Your task to perform on an android device: install app "Google Translate" Image 0: 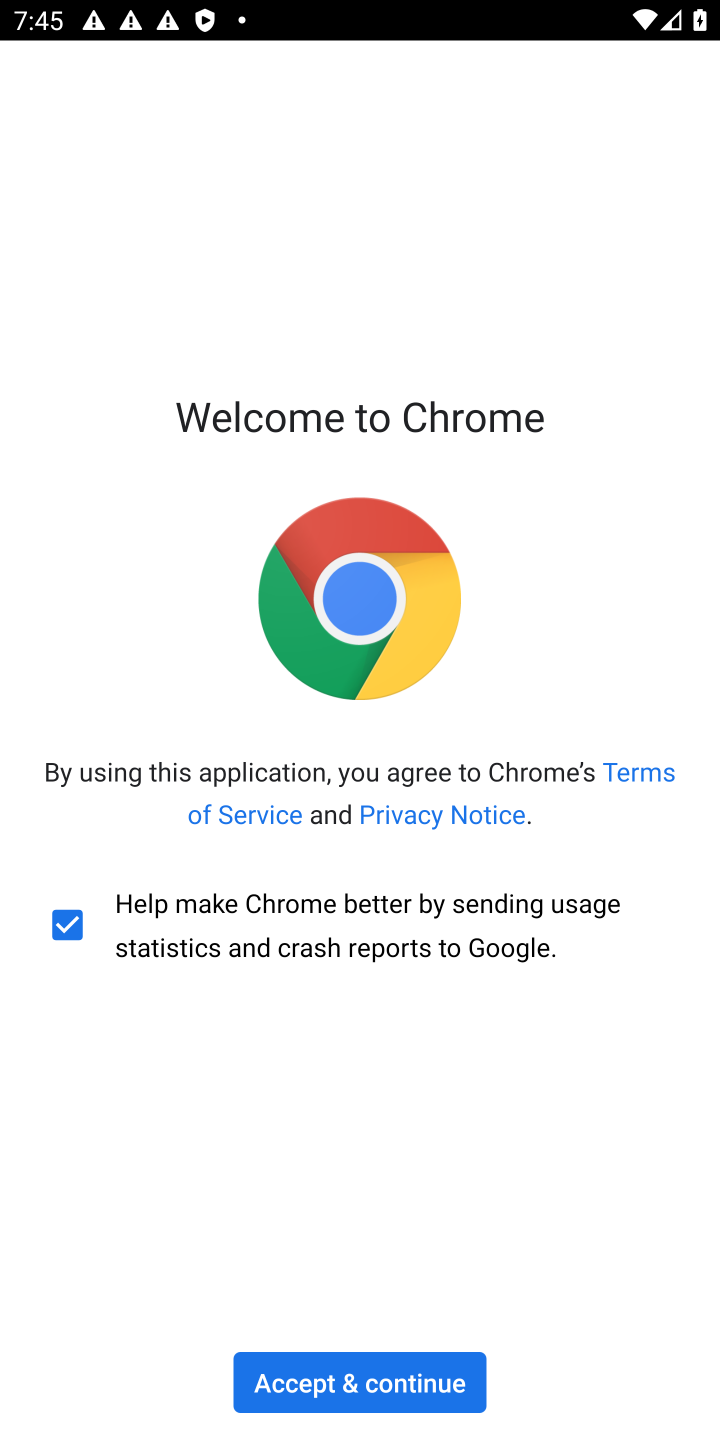
Step 0: press home button
Your task to perform on an android device: install app "Google Translate" Image 1: 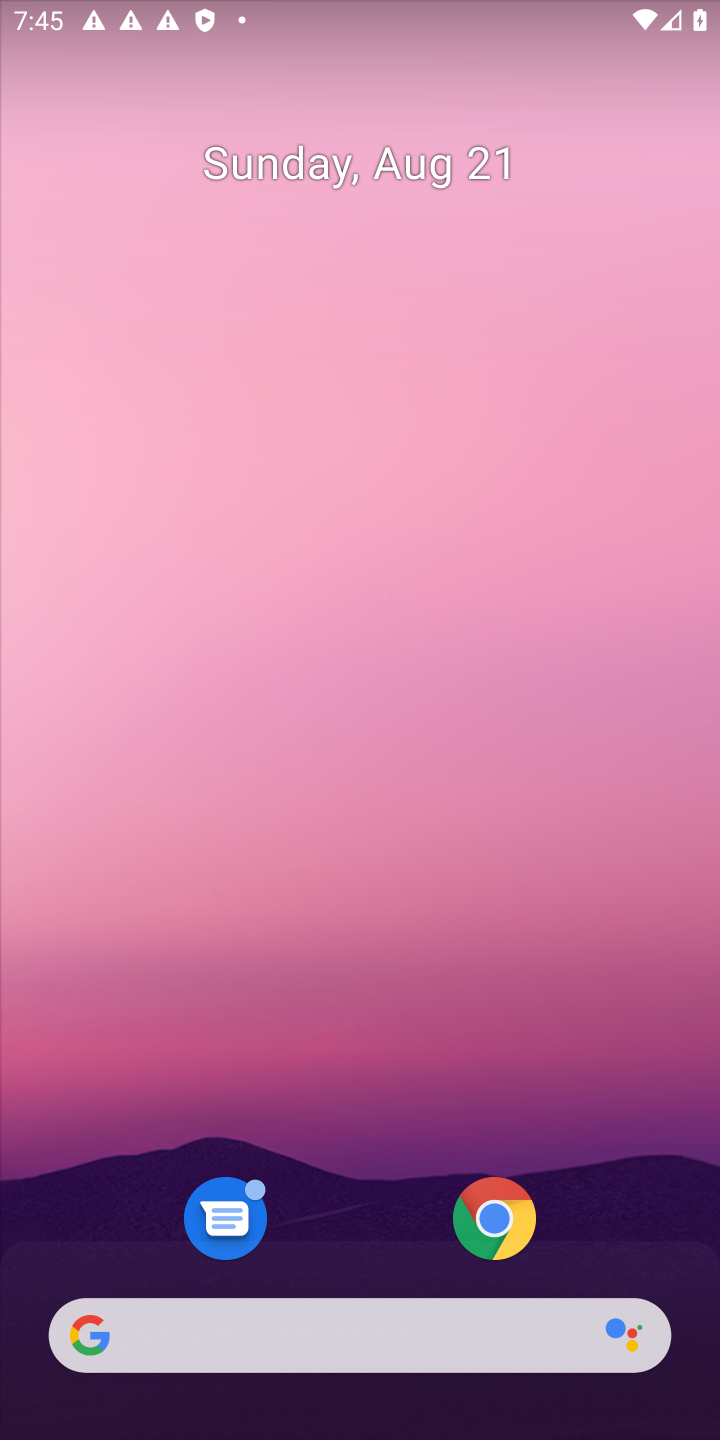
Step 1: drag from (289, 1015) to (81, 274)
Your task to perform on an android device: install app "Google Translate" Image 2: 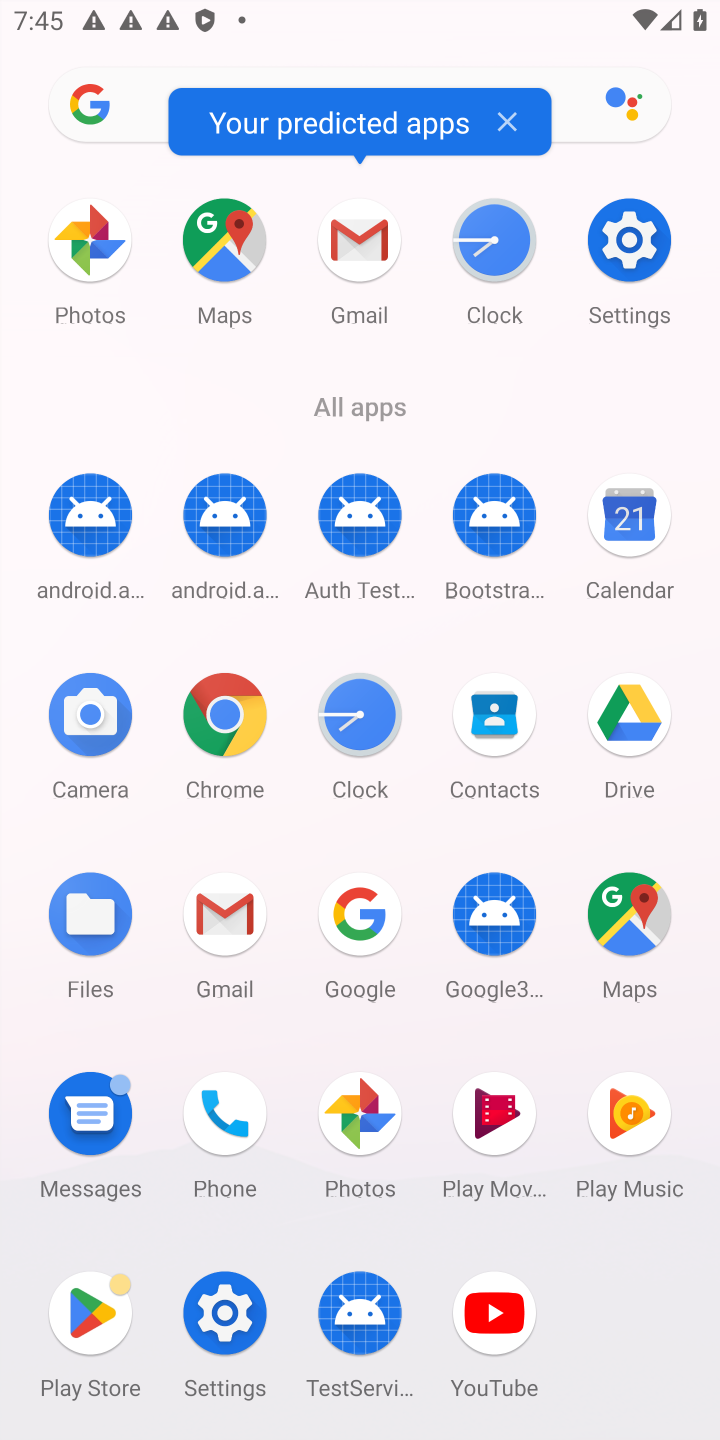
Step 2: click (112, 1338)
Your task to perform on an android device: install app "Google Translate" Image 3: 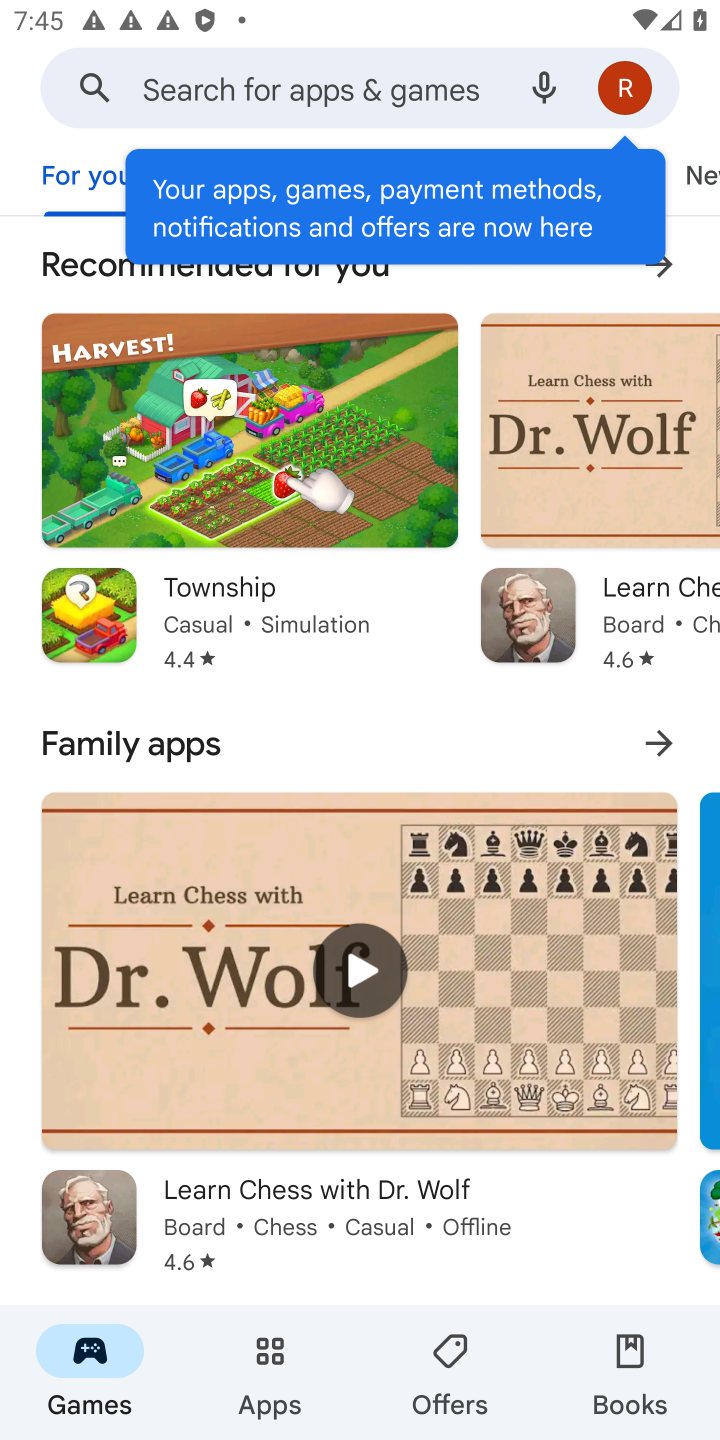
Step 3: click (344, 84)
Your task to perform on an android device: install app "Google Translate" Image 4: 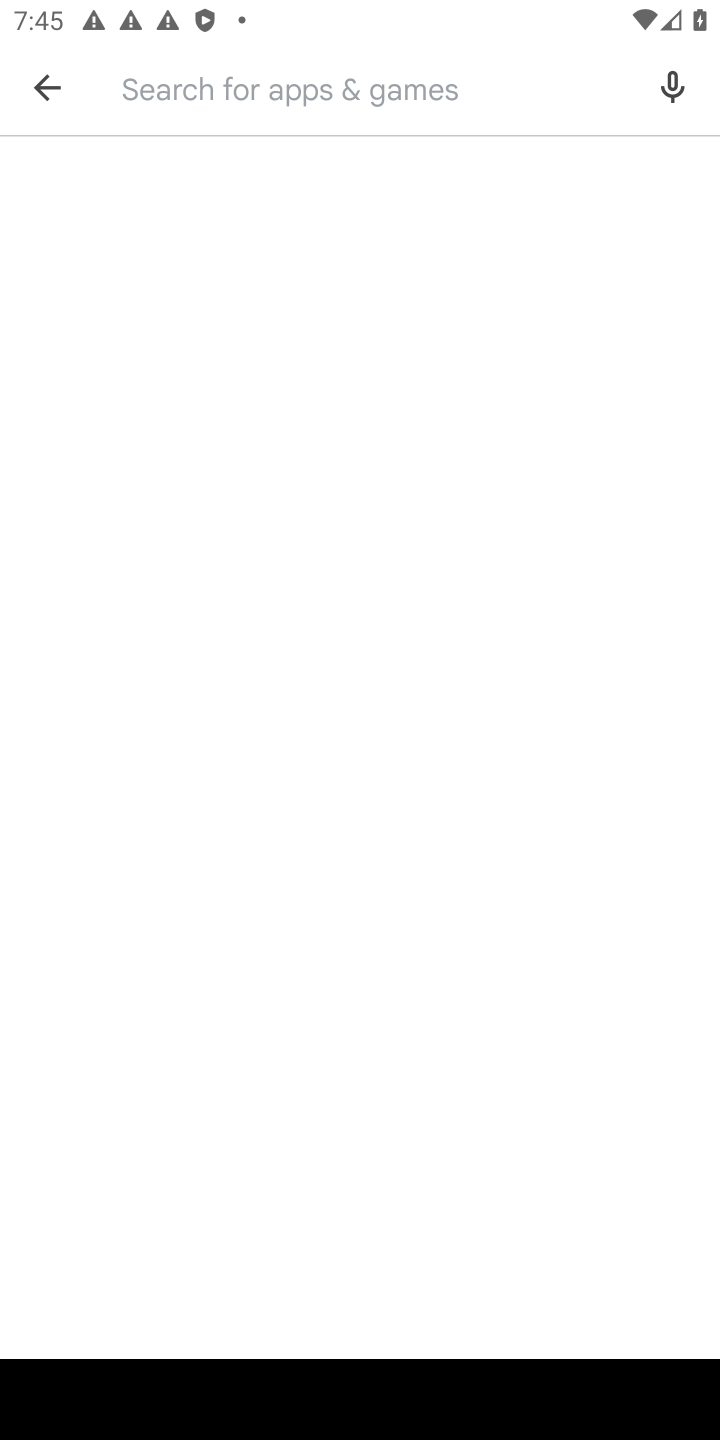
Step 4: type "google translate"
Your task to perform on an android device: install app "Google Translate" Image 5: 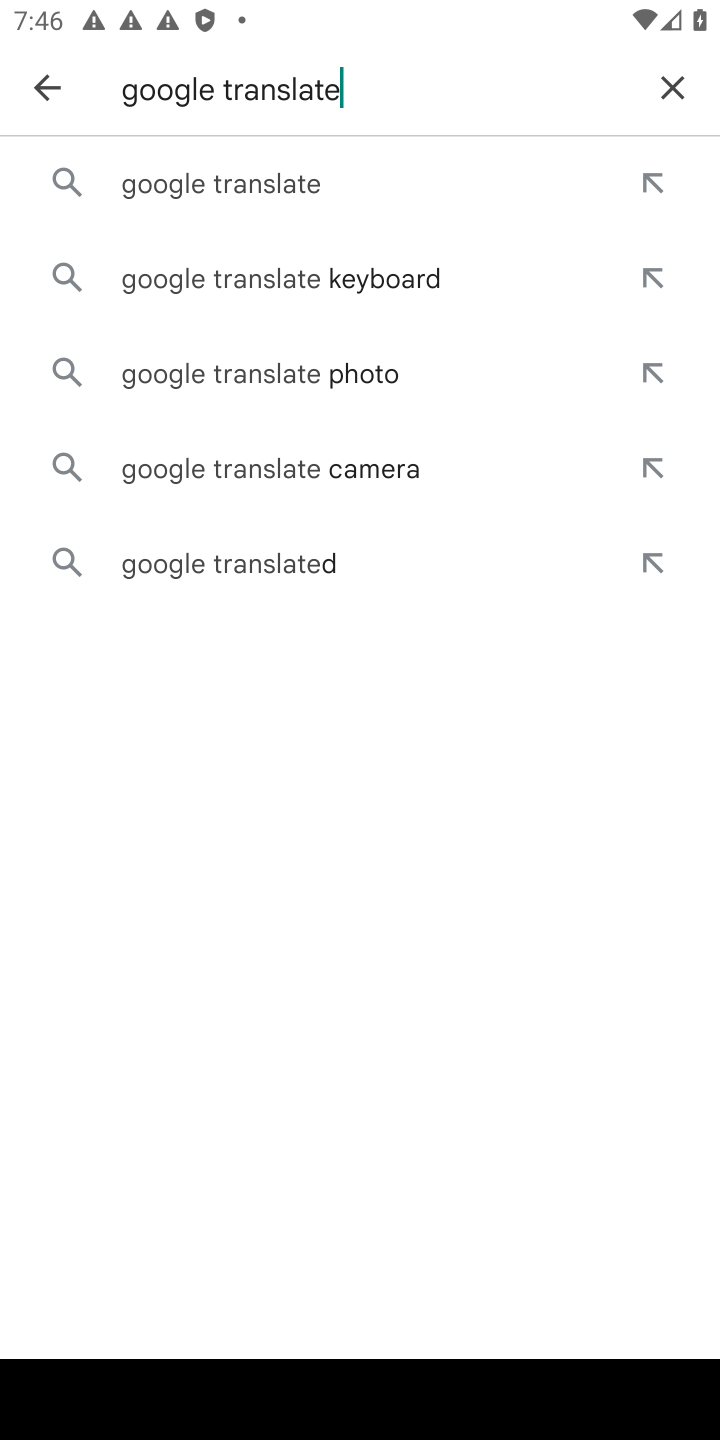
Step 5: click (315, 177)
Your task to perform on an android device: install app "Google Translate" Image 6: 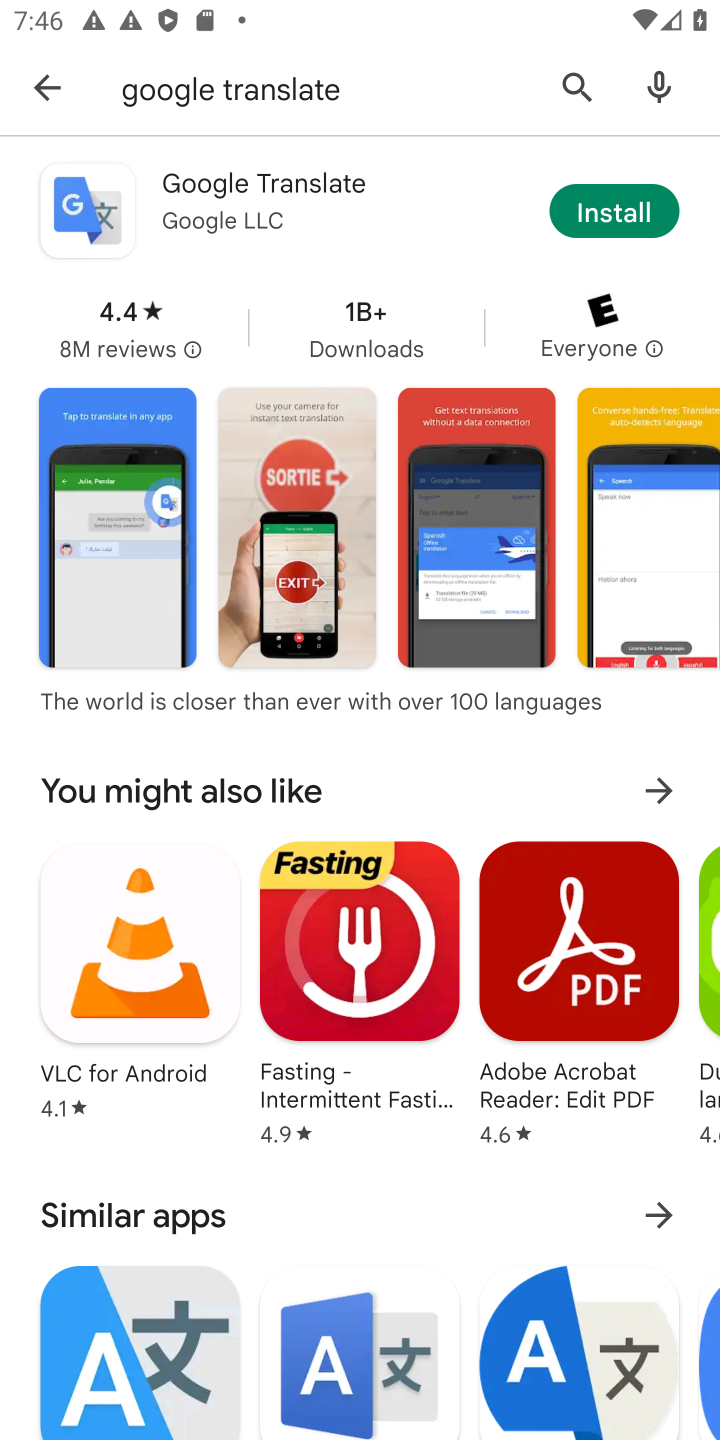
Step 6: click (601, 227)
Your task to perform on an android device: install app "Google Translate" Image 7: 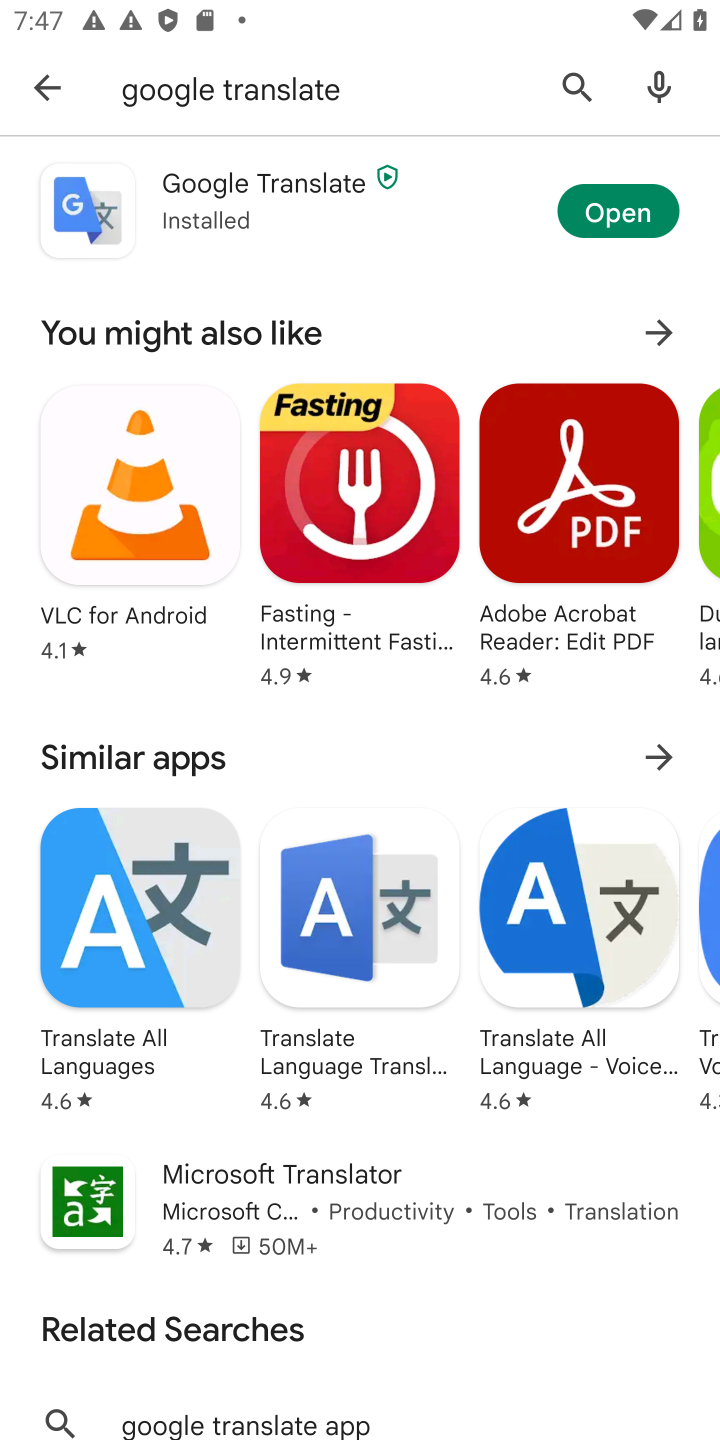
Step 7: task complete